Your task to perform on an android device: Open the Play Movies app and select the watchlist tab. Image 0: 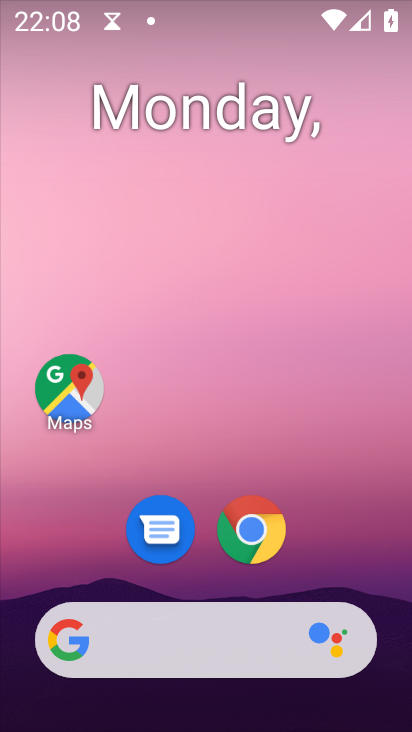
Step 0: drag from (317, 543) to (287, 126)
Your task to perform on an android device: Open the Play Movies app and select the watchlist tab. Image 1: 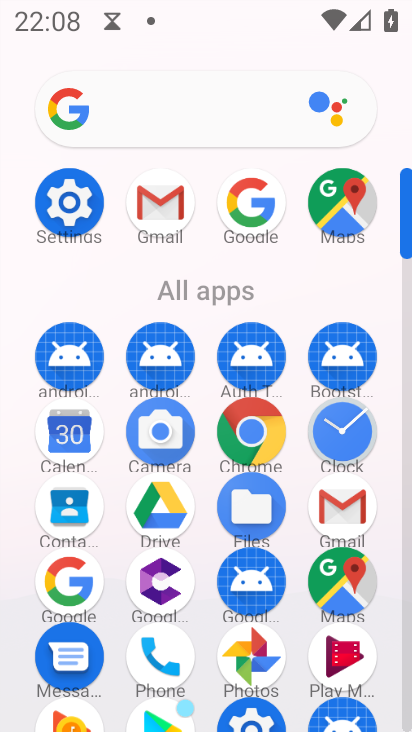
Step 1: drag from (208, 465) to (197, 262)
Your task to perform on an android device: Open the Play Movies app and select the watchlist tab. Image 2: 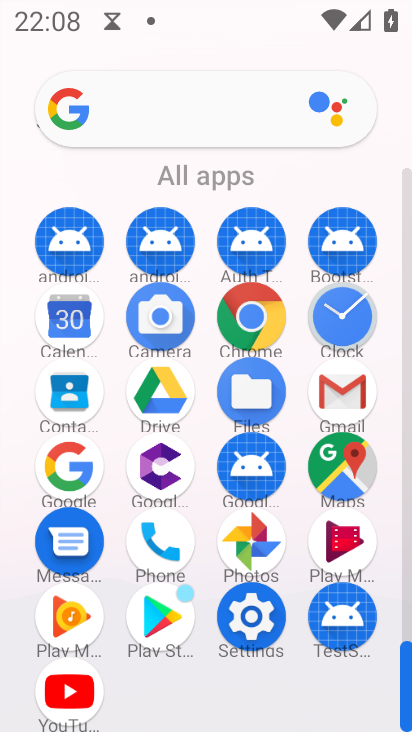
Step 2: click (341, 543)
Your task to perform on an android device: Open the Play Movies app and select the watchlist tab. Image 3: 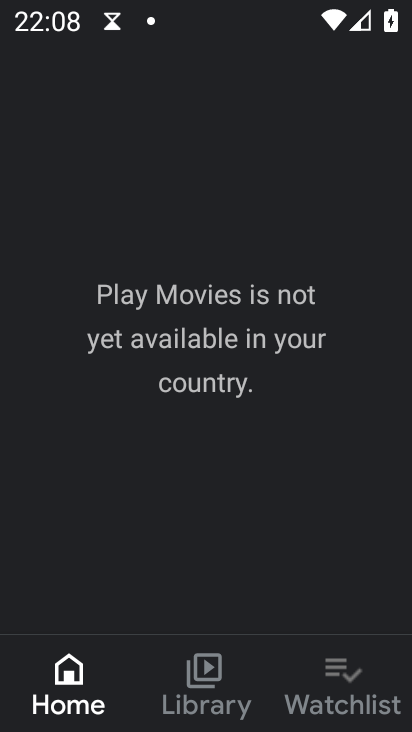
Step 3: click (336, 663)
Your task to perform on an android device: Open the Play Movies app and select the watchlist tab. Image 4: 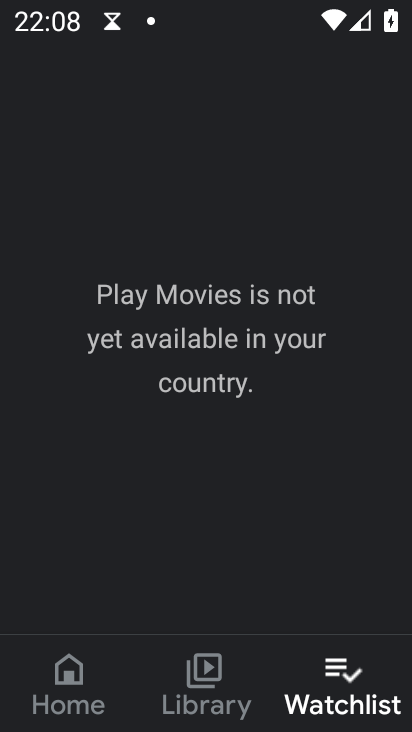
Step 4: task complete